Your task to perform on an android device: remove spam from my inbox in the gmail app Image 0: 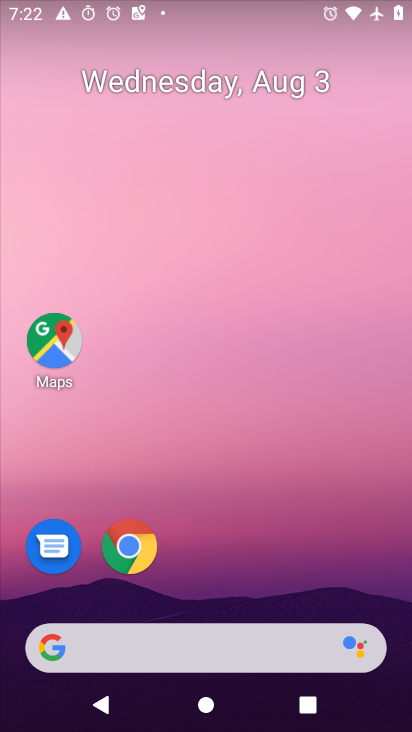
Step 0: press home button
Your task to perform on an android device: remove spam from my inbox in the gmail app Image 1: 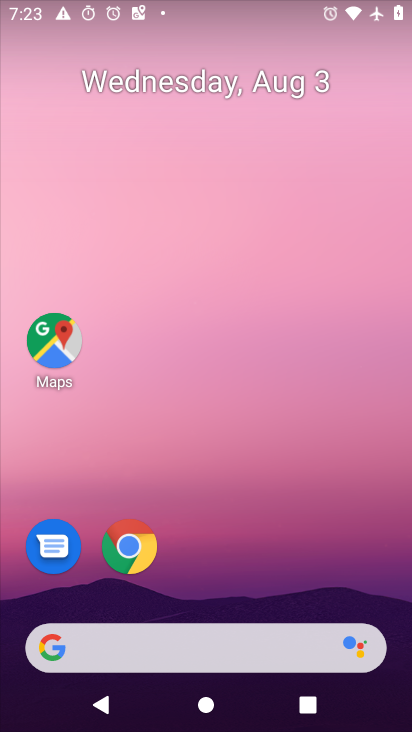
Step 1: drag from (240, 598) to (177, 191)
Your task to perform on an android device: remove spam from my inbox in the gmail app Image 2: 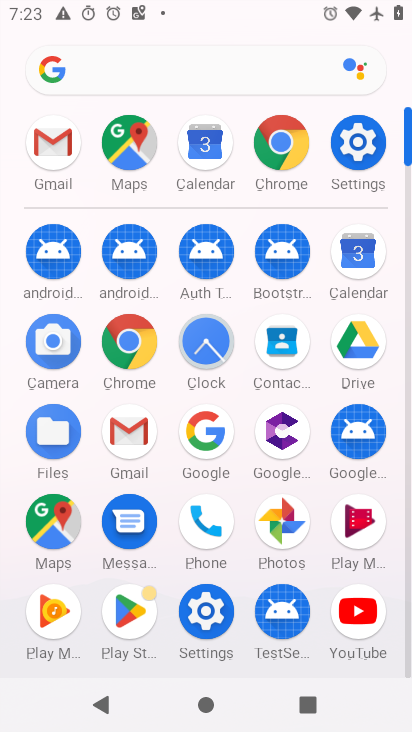
Step 2: click (50, 149)
Your task to perform on an android device: remove spam from my inbox in the gmail app Image 3: 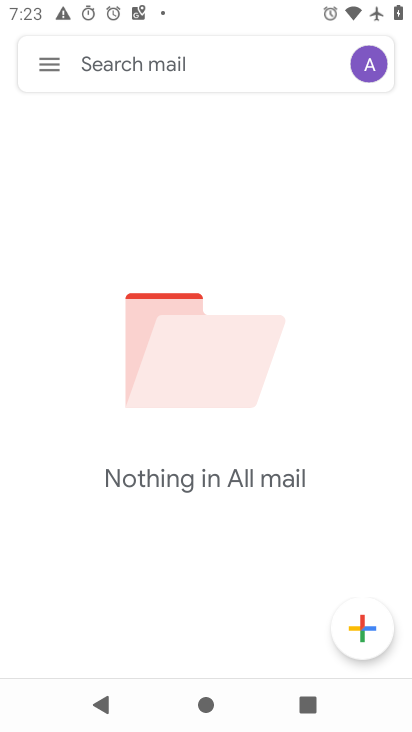
Step 3: click (48, 64)
Your task to perform on an android device: remove spam from my inbox in the gmail app Image 4: 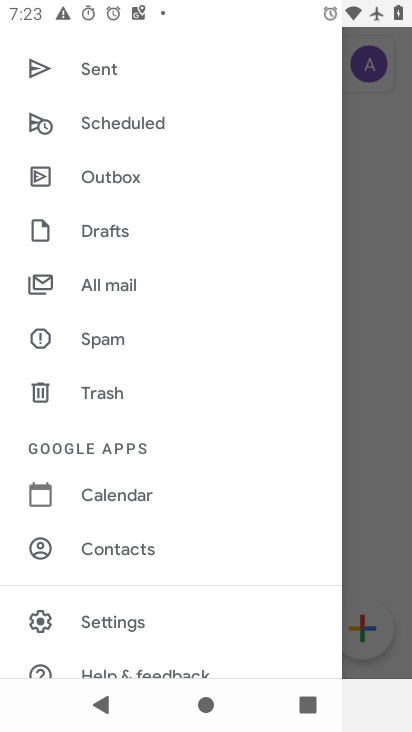
Step 4: click (99, 339)
Your task to perform on an android device: remove spam from my inbox in the gmail app Image 5: 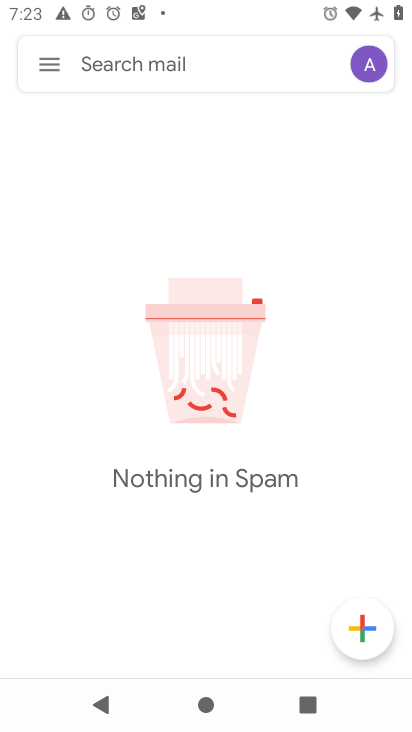
Step 5: task complete